Your task to perform on an android device: refresh tabs in the chrome app Image 0: 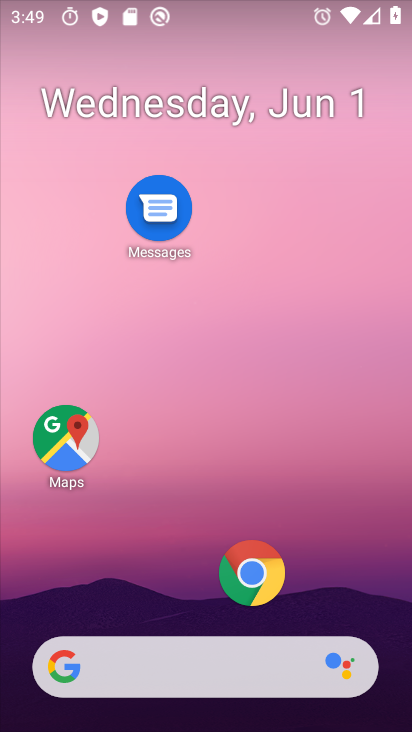
Step 0: click (233, 580)
Your task to perform on an android device: refresh tabs in the chrome app Image 1: 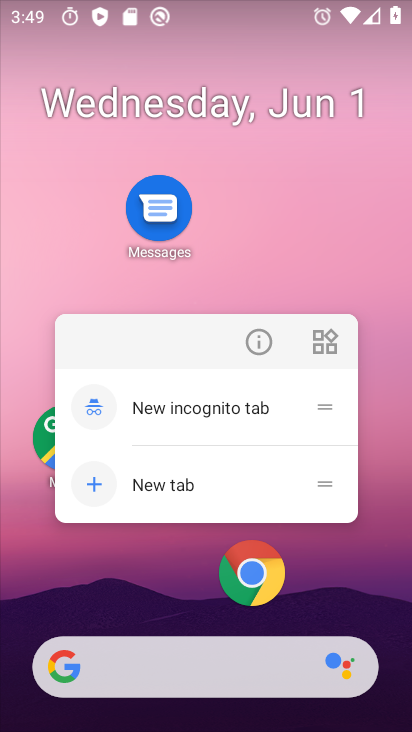
Step 1: click (252, 598)
Your task to perform on an android device: refresh tabs in the chrome app Image 2: 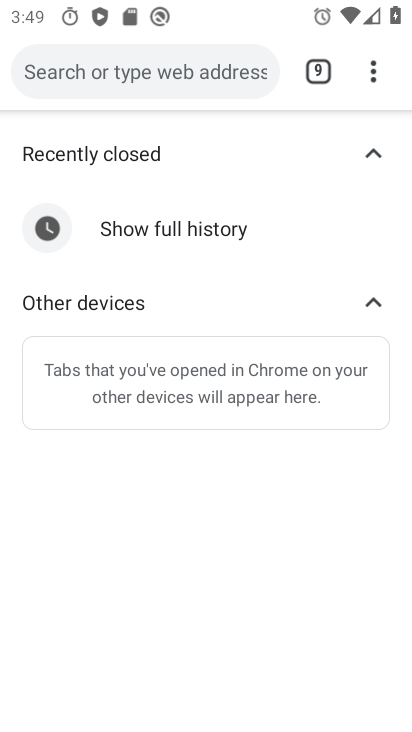
Step 2: click (368, 78)
Your task to perform on an android device: refresh tabs in the chrome app Image 3: 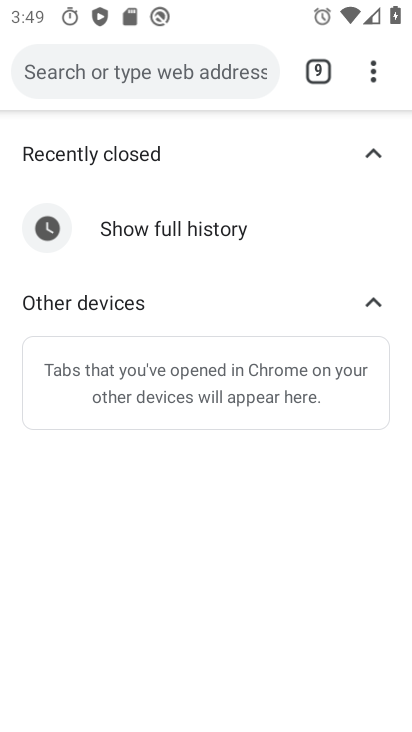
Step 3: task complete